Your task to perform on an android device: turn off sleep mode Image 0: 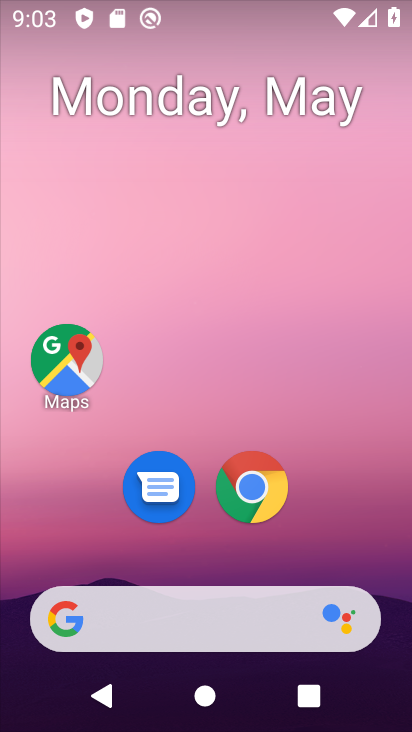
Step 0: drag from (207, 553) to (262, 121)
Your task to perform on an android device: turn off sleep mode Image 1: 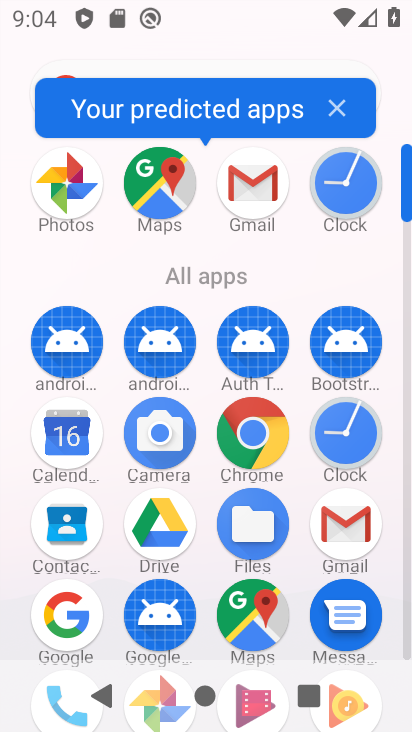
Step 1: drag from (206, 586) to (189, 142)
Your task to perform on an android device: turn off sleep mode Image 2: 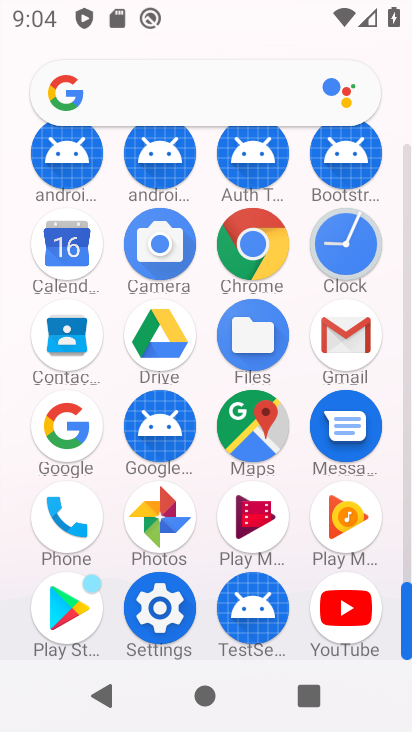
Step 2: click (164, 612)
Your task to perform on an android device: turn off sleep mode Image 3: 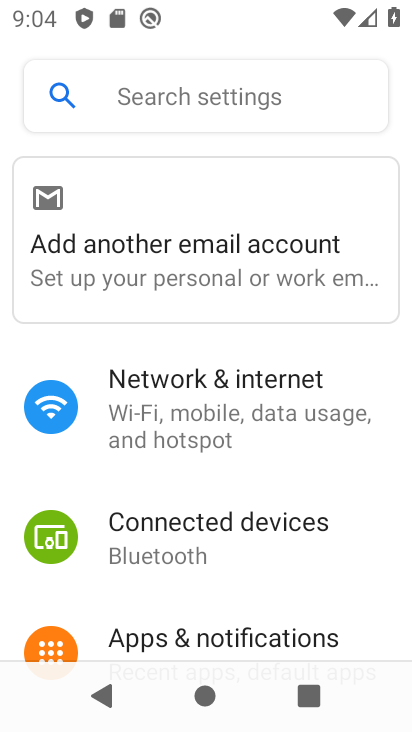
Step 3: drag from (210, 582) to (245, 154)
Your task to perform on an android device: turn off sleep mode Image 4: 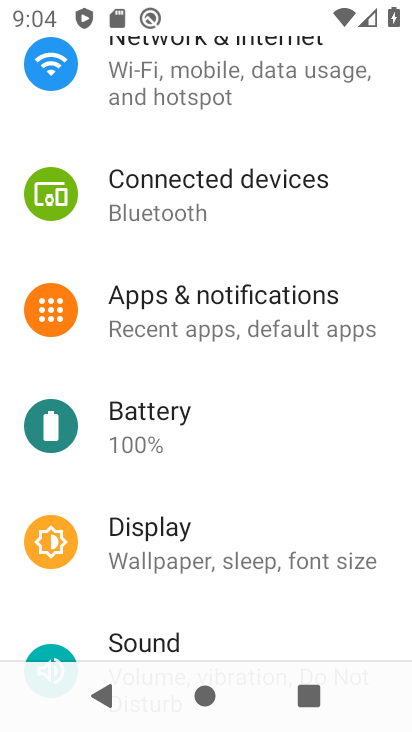
Step 4: click (231, 543)
Your task to perform on an android device: turn off sleep mode Image 5: 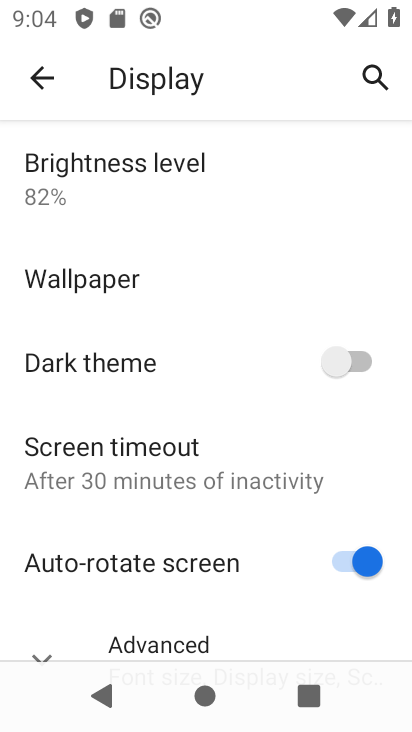
Step 5: click (187, 467)
Your task to perform on an android device: turn off sleep mode Image 6: 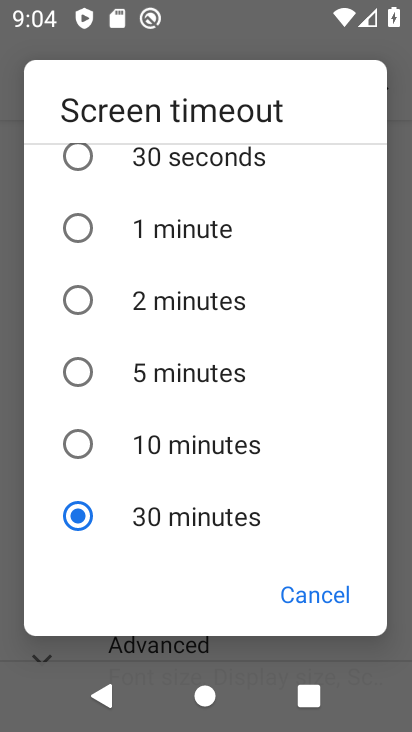
Step 6: task complete